Your task to perform on an android device: Open calendar and show me the second week of next month Image 0: 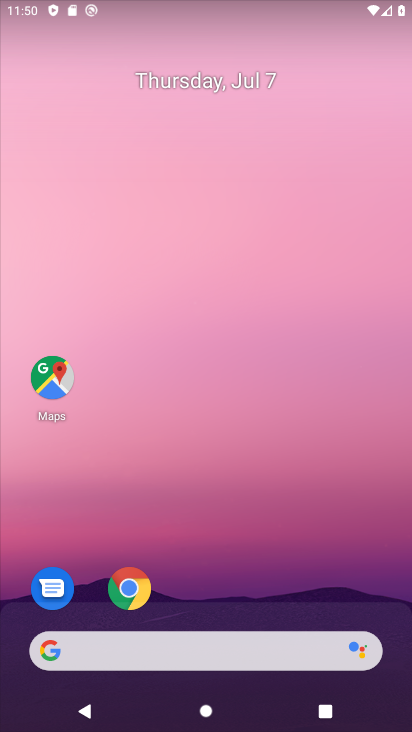
Step 0: drag from (250, 615) to (267, 45)
Your task to perform on an android device: Open calendar and show me the second week of next month Image 1: 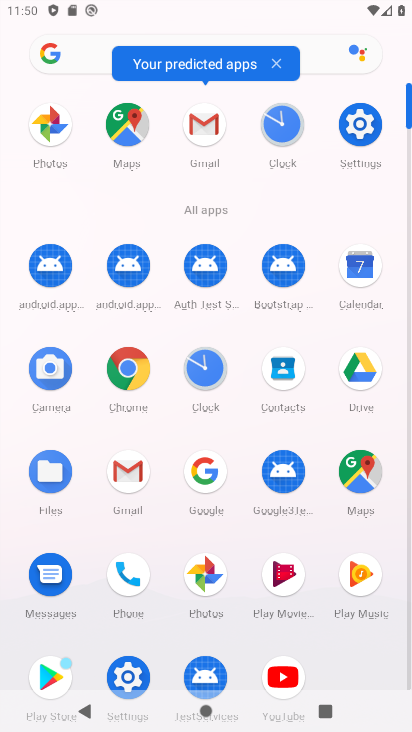
Step 1: click (358, 260)
Your task to perform on an android device: Open calendar and show me the second week of next month Image 2: 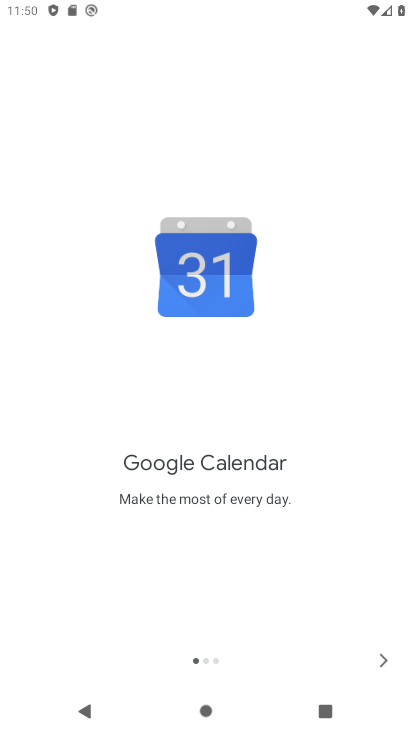
Step 2: click (385, 656)
Your task to perform on an android device: Open calendar and show me the second week of next month Image 3: 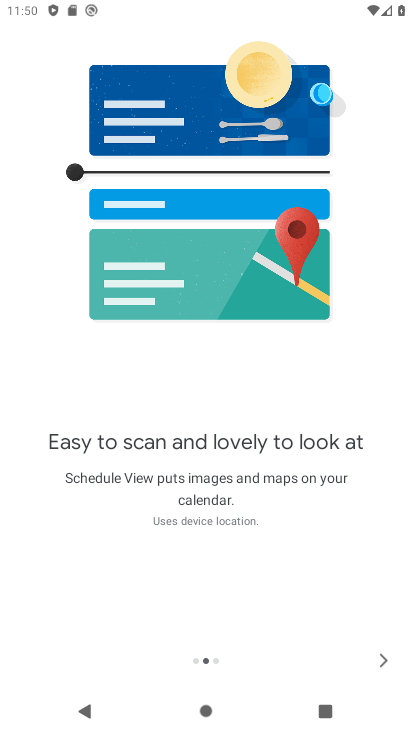
Step 3: click (385, 654)
Your task to perform on an android device: Open calendar and show me the second week of next month Image 4: 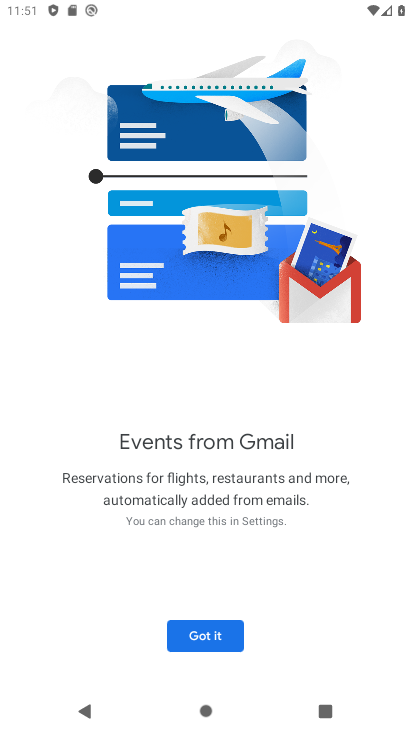
Step 4: click (211, 634)
Your task to perform on an android device: Open calendar and show me the second week of next month Image 5: 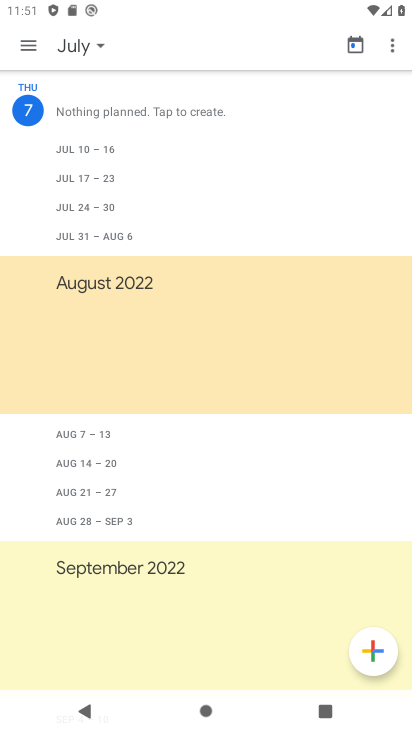
Step 5: click (99, 43)
Your task to perform on an android device: Open calendar and show me the second week of next month Image 6: 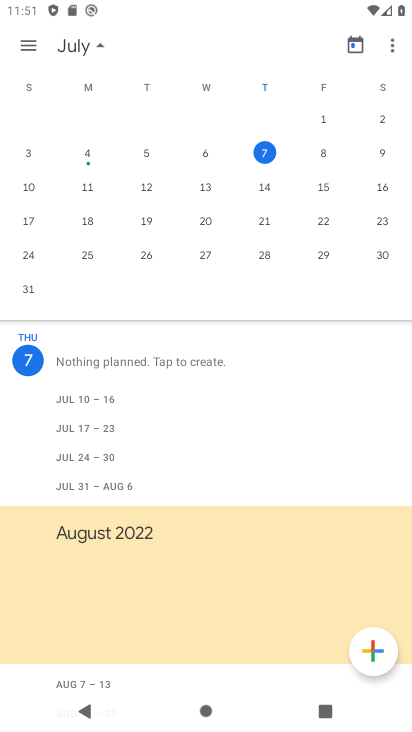
Step 6: drag from (364, 206) to (0, 199)
Your task to perform on an android device: Open calendar and show me the second week of next month Image 7: 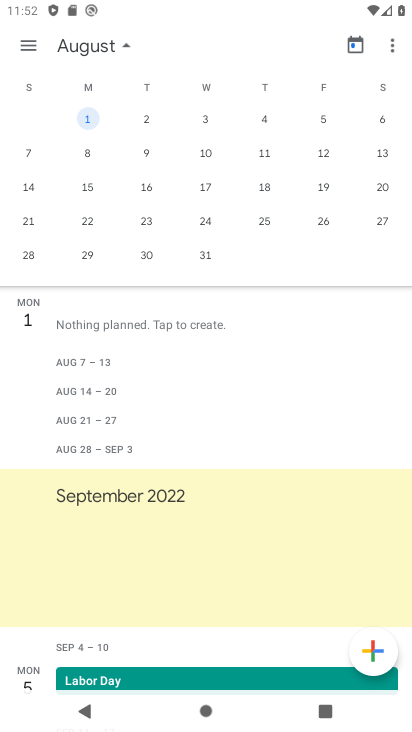
Step 7: click (18, 190)
Your task to perform on an android device: Open calendar and show me the second week of next month Image 8: 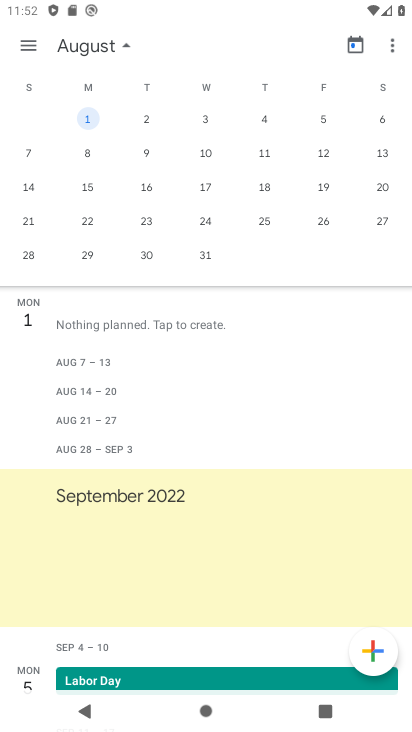
Step 8: click (32, 195)
Your task to perform on an android device: Open calendar and show me the second week of next month Image 9: 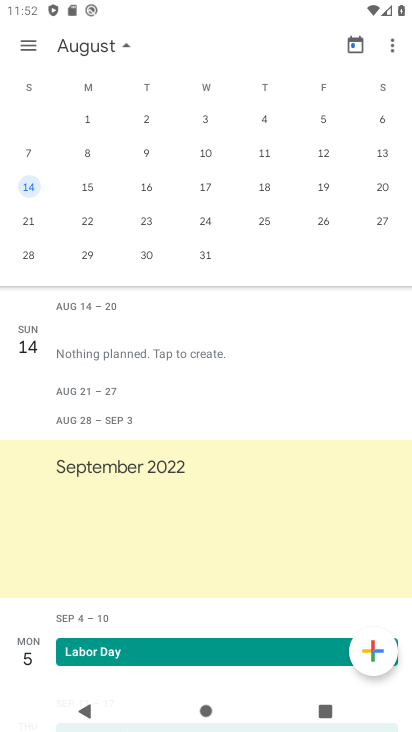
Step 9: click (128, 44)
Your task to perform on an android device: Open calendar and show me the second week of next month Image 10: 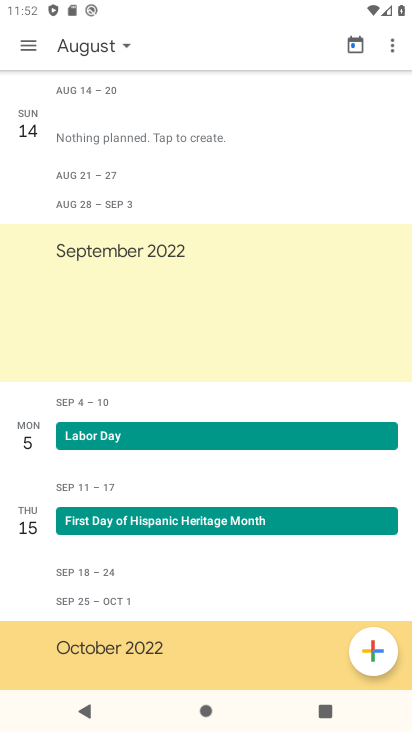
Step 10: task complete